Your task to perform on an android device: Clear the shopping cart on target. Image 0: 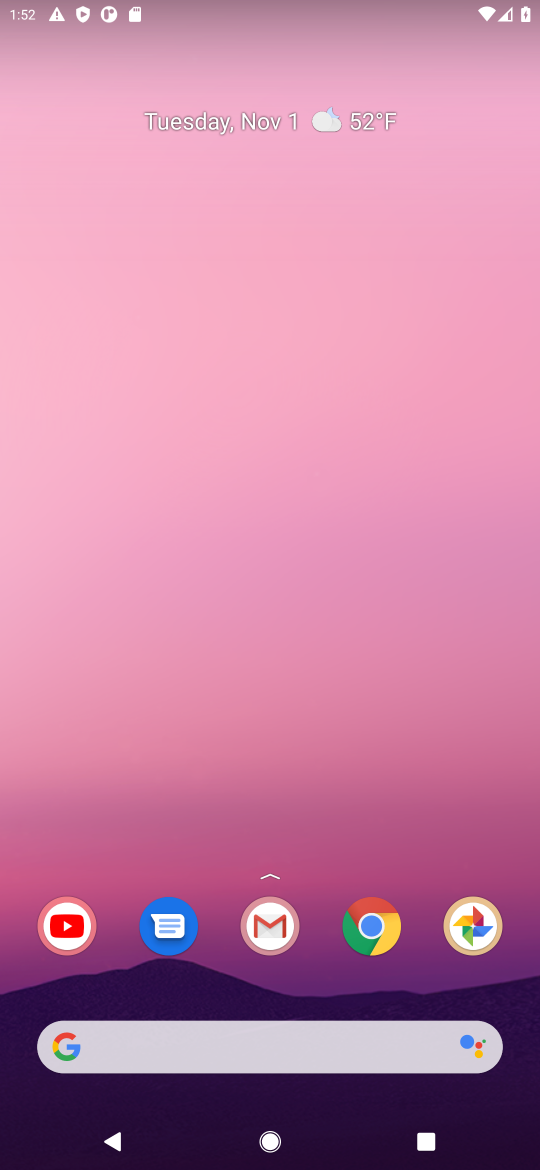
Step 0: click (378, 933)
Your task to perform on an android device: Clear the shopping cart on target. Image 1: 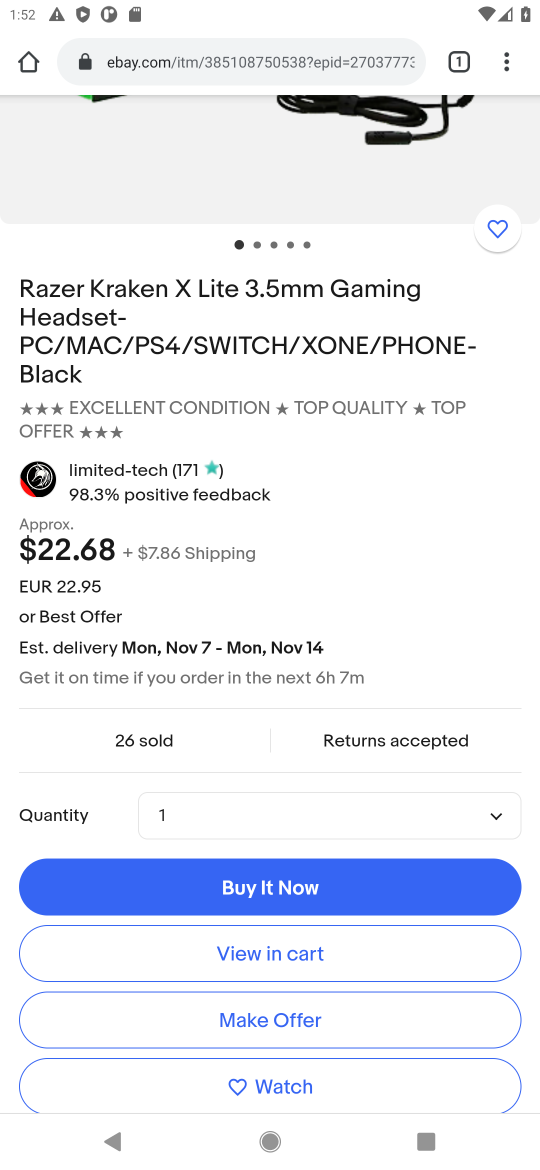
Step 1: click (330, 61)
Your task to perform on an android device: Clear the shopping cart on target. Image 2: 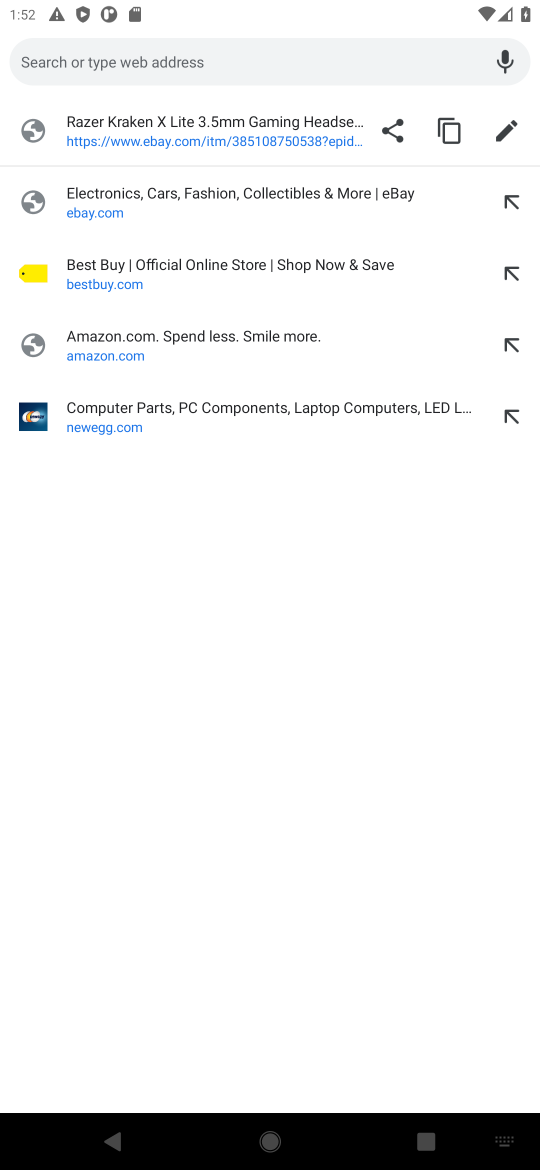
Step 2: type "target"
Your task to perform on an android device: Clear the shopping cart on target. Image 3: 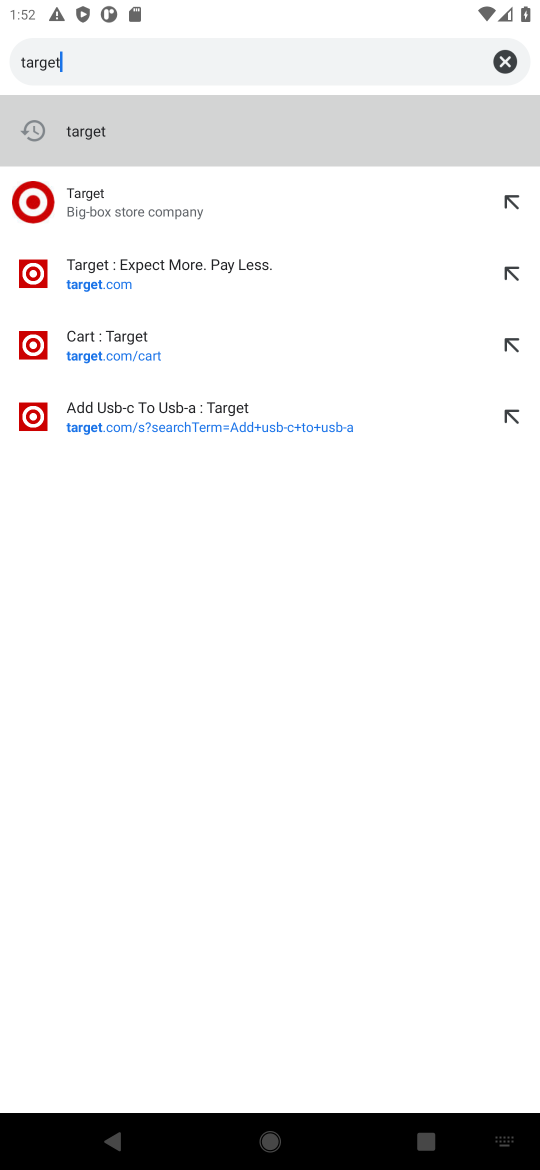
Step 3: click (137, 193)
Your task to perform on an android device: Clear the shopping cart on target. Image 4: 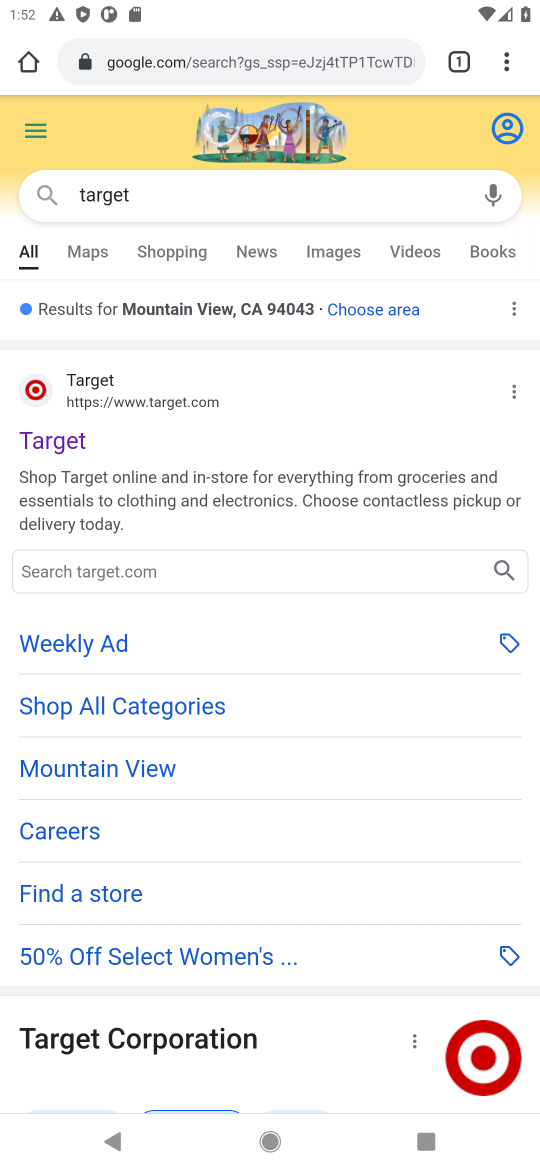
Step 4: click (59, 438)
Your task to perform on an android device: Clear the shopping cart on target. Image 5: 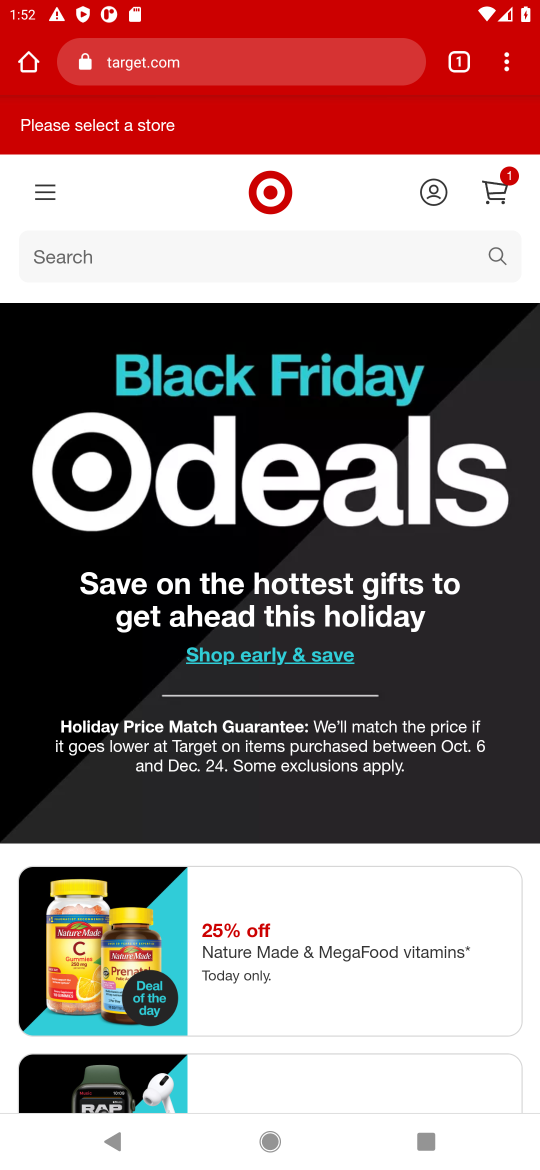
Step 5: click (506, 197)
Your task to perform on an android device: Clear the shopping cart on target. Image 6: 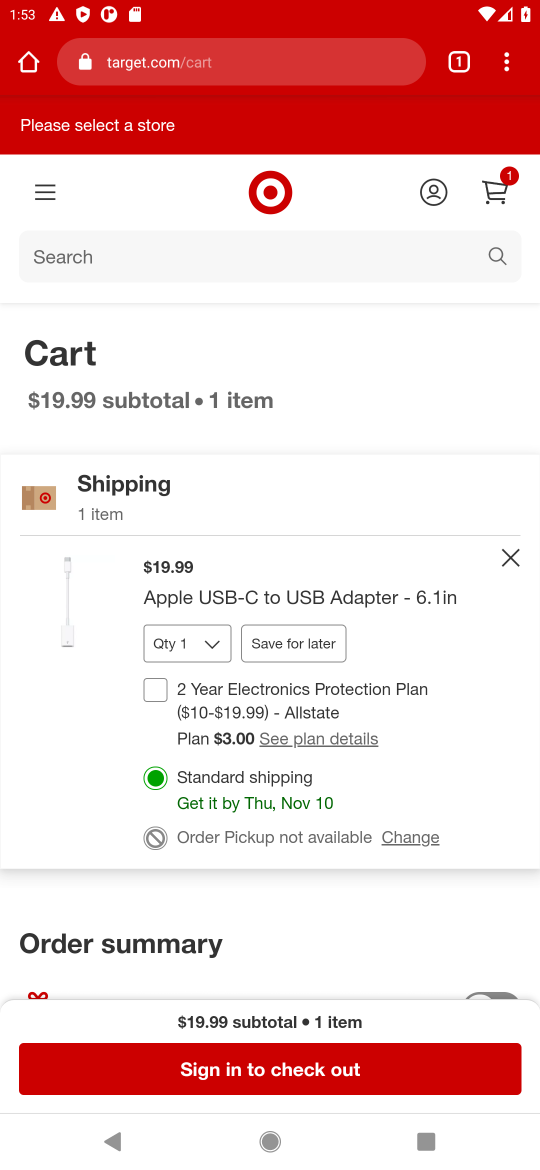
Step 6: click (507, 556)
Your task to perform on an android device: Clear the shopping cart on target. Image 7: 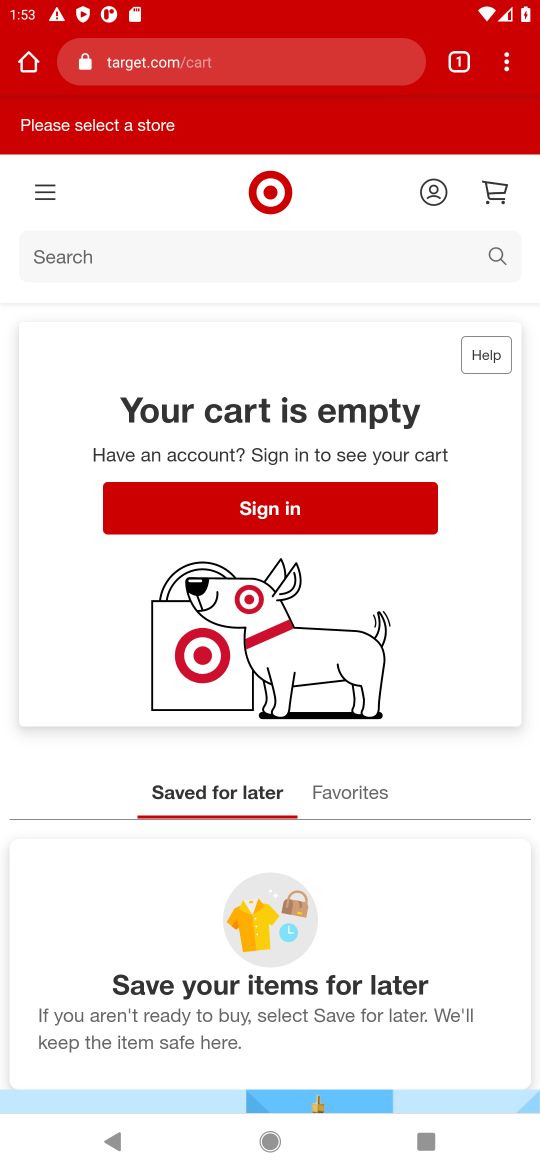
Step 7: task complete